Your task to perform on an android device: star an email in the gmail app Image 0: 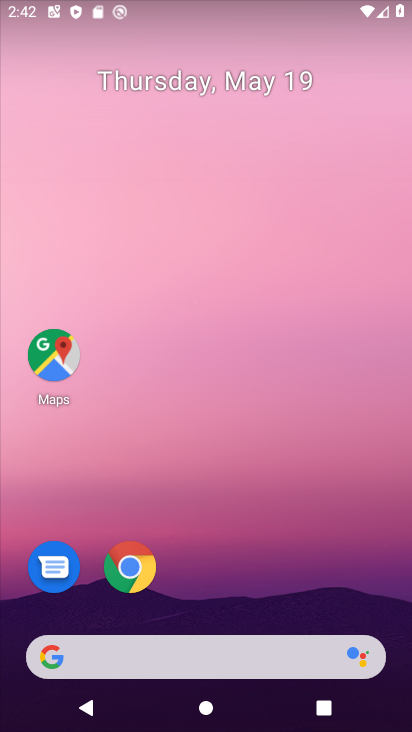
Step 0: drag from (231, 714) to (213, 244)
Your task to perform on an android device: star an email in the gmail app Image 1: 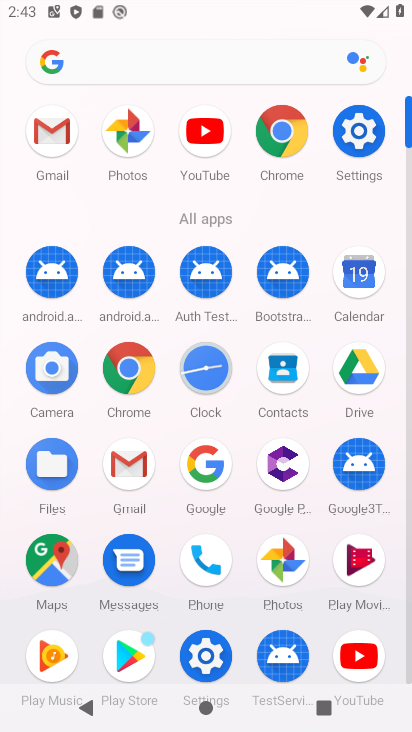
Step 1: click (128, 486)
Your task to perform on an android device: star an email in the gmail app Image 2: 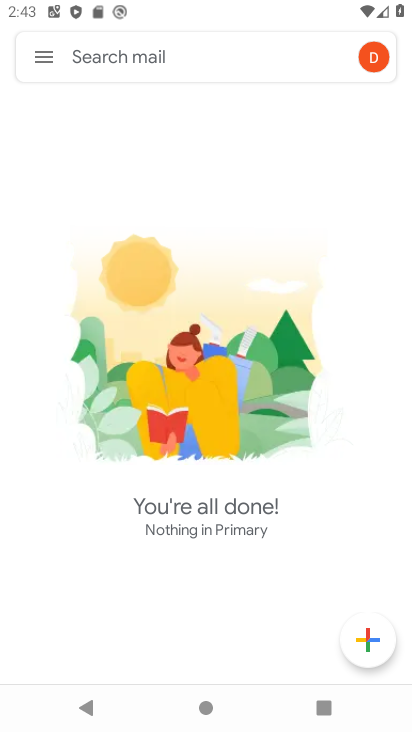
Step 2: task complete